Your task to perform on an android device: Clear the cart on newegg.com. Search for dell xps on newegg.com, select the first entry, and add it to the cart. Image 0: 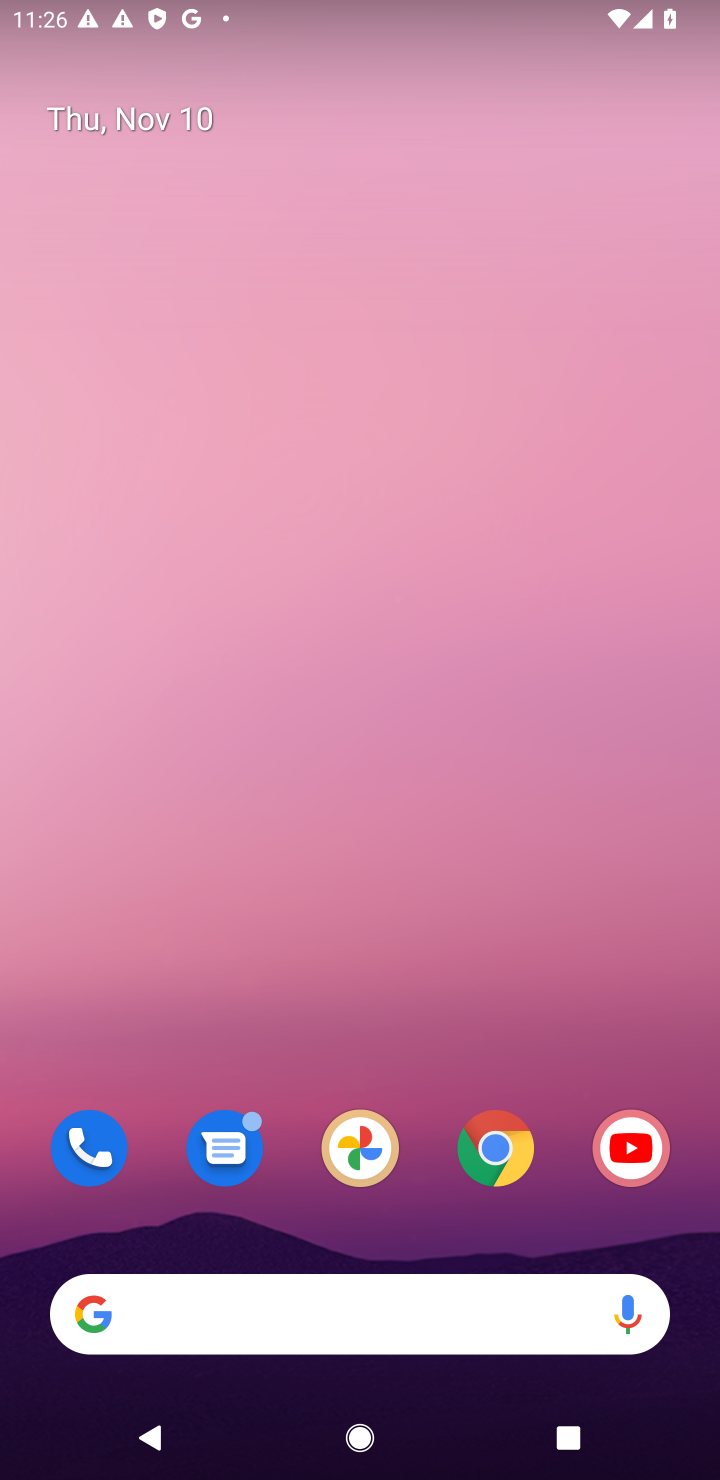
Step 0: click (494, 1132)
Your task to perform on an android device: Clear the cart on newegg.com. Search for dell xps on newegg.com, select the first entry, and add it to the cart. Image 1: 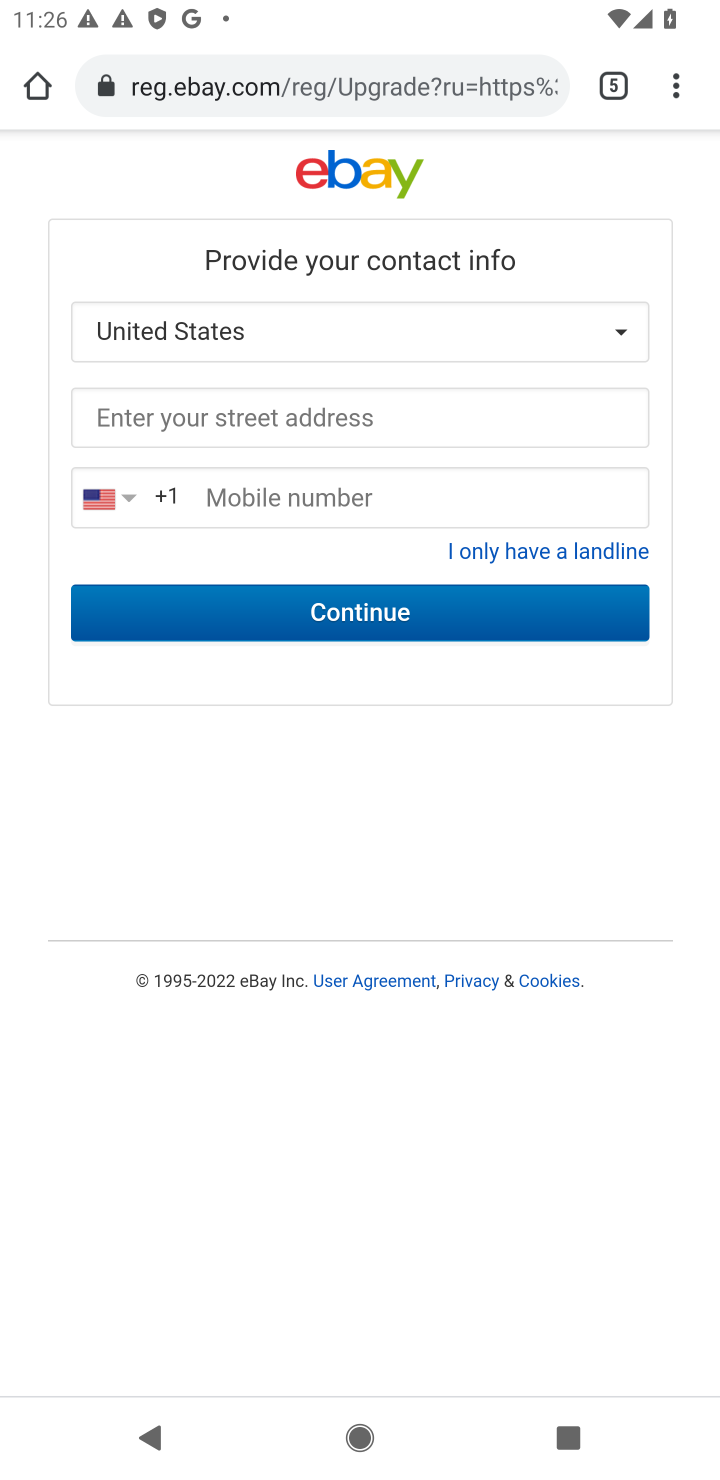
Step 1: press back button
Your task to perform on an android device: Clear the cart on newegg.com. Search for dell xps on newegg.com, select the first entry, and add it to the cart. Image 2: 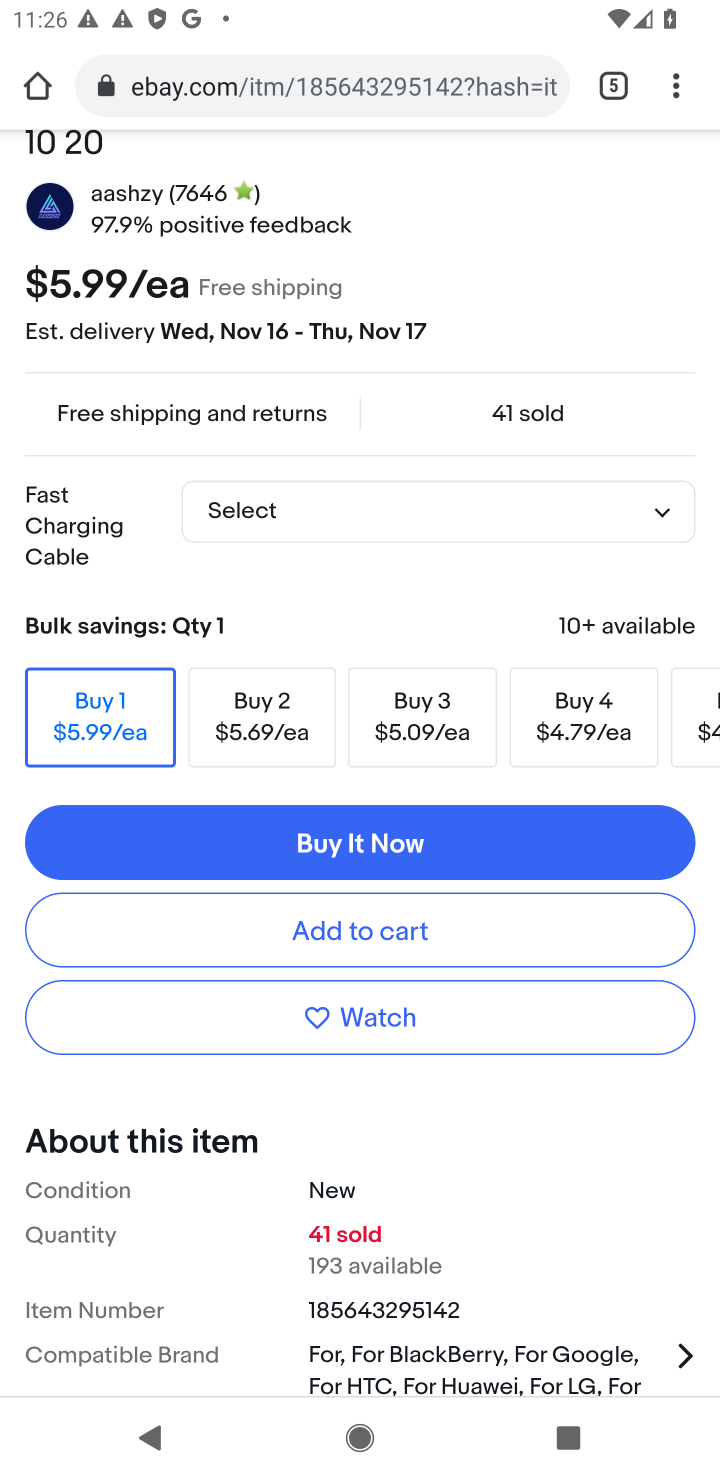
Step 2: drag from (591, 151) to (572, 963)
Your task to perform on an android device: Clear the cart on newegg.com. Search for dell xps on newegg.com, select the first entry, and add it to the cart. Image 3: 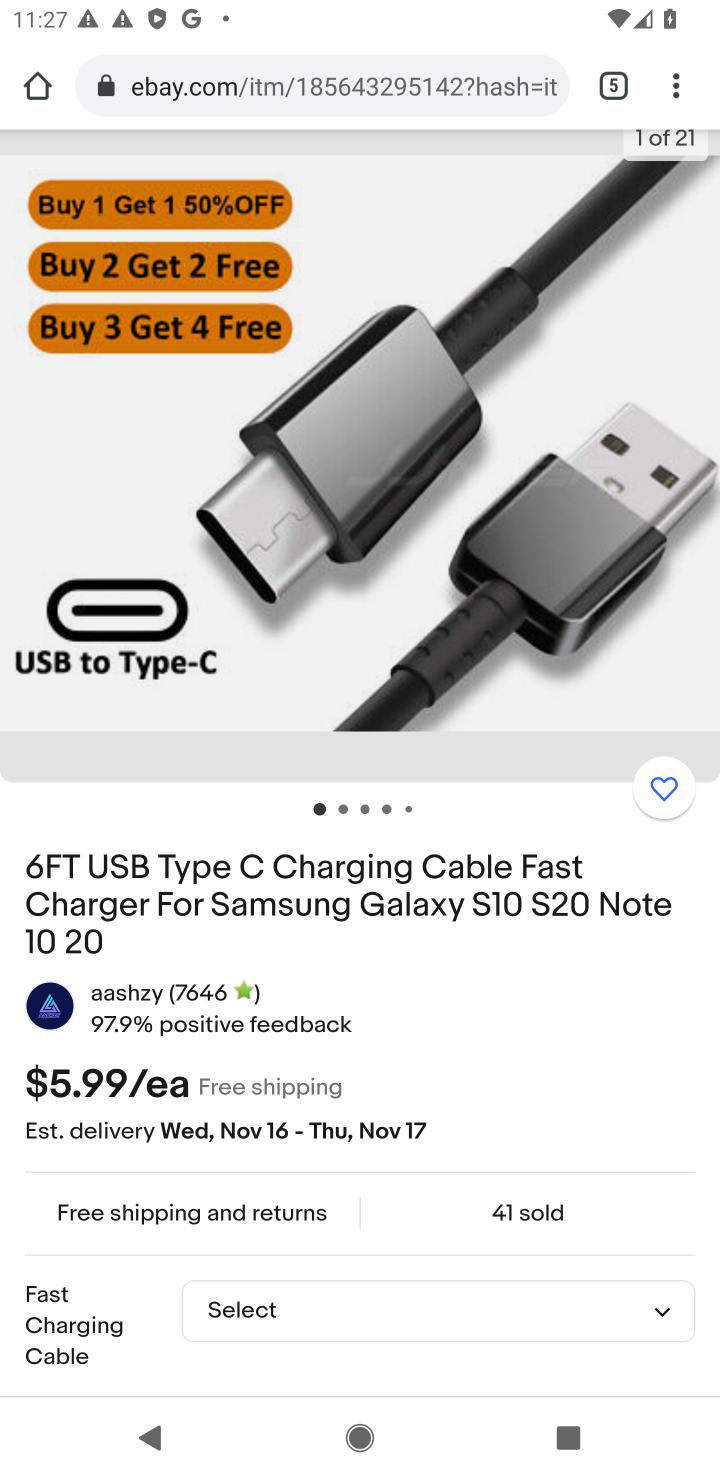
Step 3: drag from (517, 433) to (287, 1269)
Your task to perform on an android device: Clear the cart on newegg.com. Search for dell xps on newegg.com, select the first entry, and add it to the cart. Image 4: 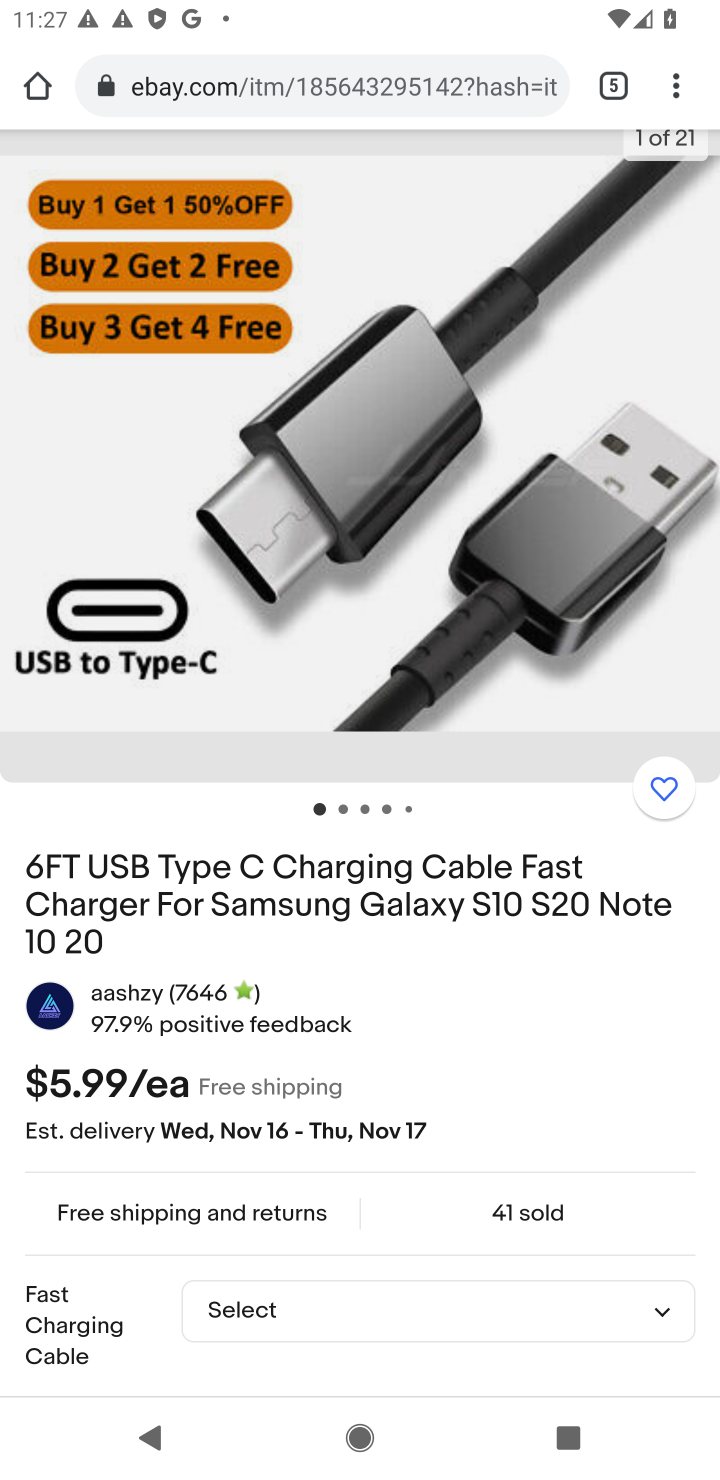
Step 4: drag from (482, 427) to (235, 1467)
Your task to perform on an android device: Clear the cart on newegg.com. Search for dell xps on newegg.com, select the first entry, and add it to the cart. Image 5: 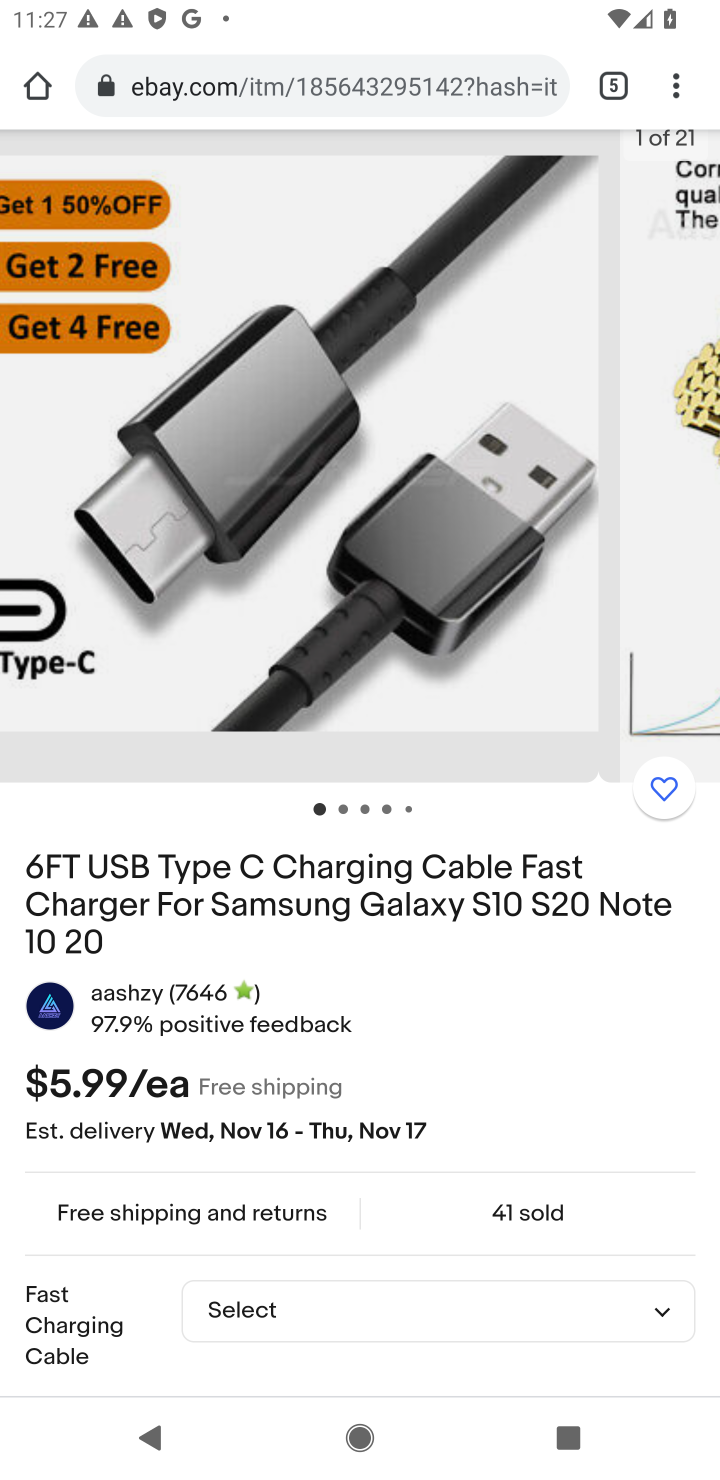
Step 5: drag from (537, 421) to (419, 1263)
Your task to perform on an android device: Clear the cart on newegg.com. Search for dell xps on newegg.com, select the first entry, and add it to the cart. Image 6: 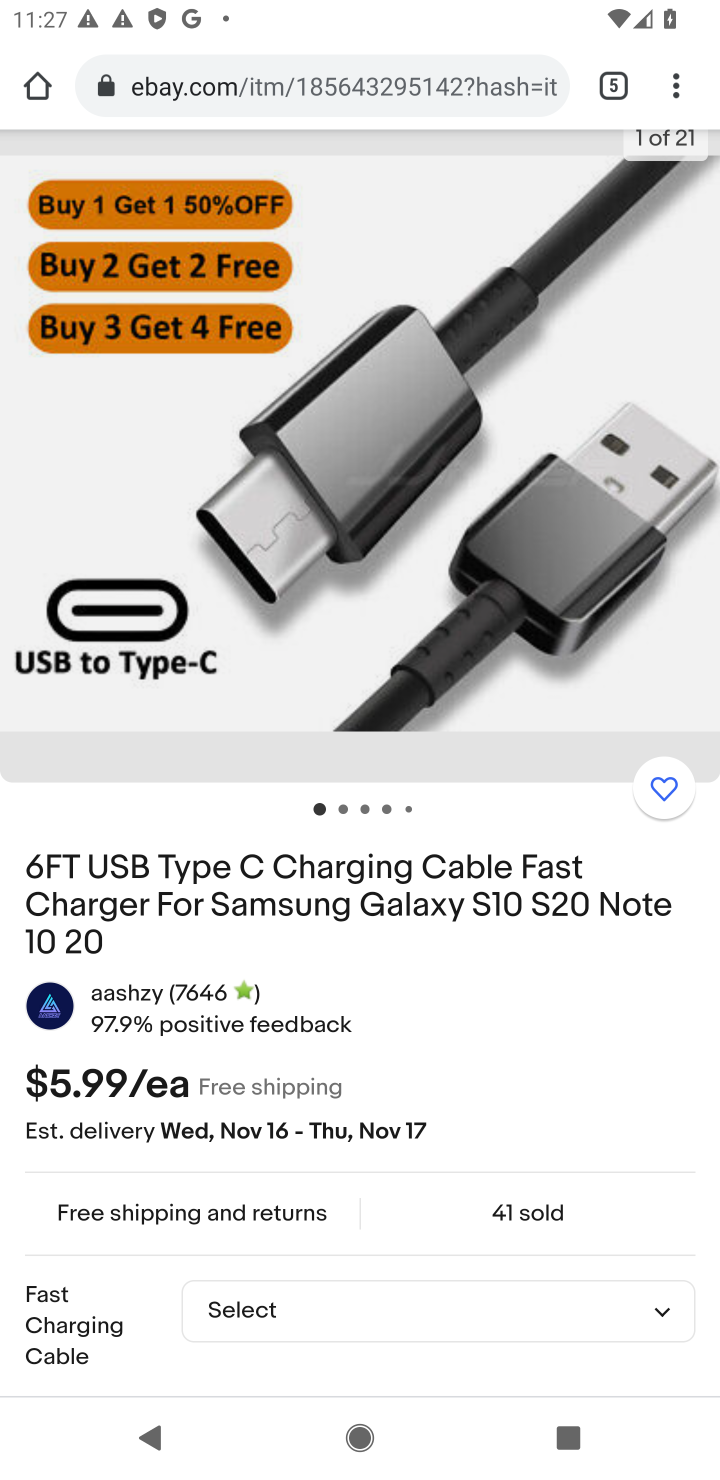
Step 6: drag from (484, 905) to (229, 1469)
Your task to perform on an android device: Clear the cart on newegg.com. Search for dell xps on newegg.com, select the first entry, and add it to the cart. Image 7: 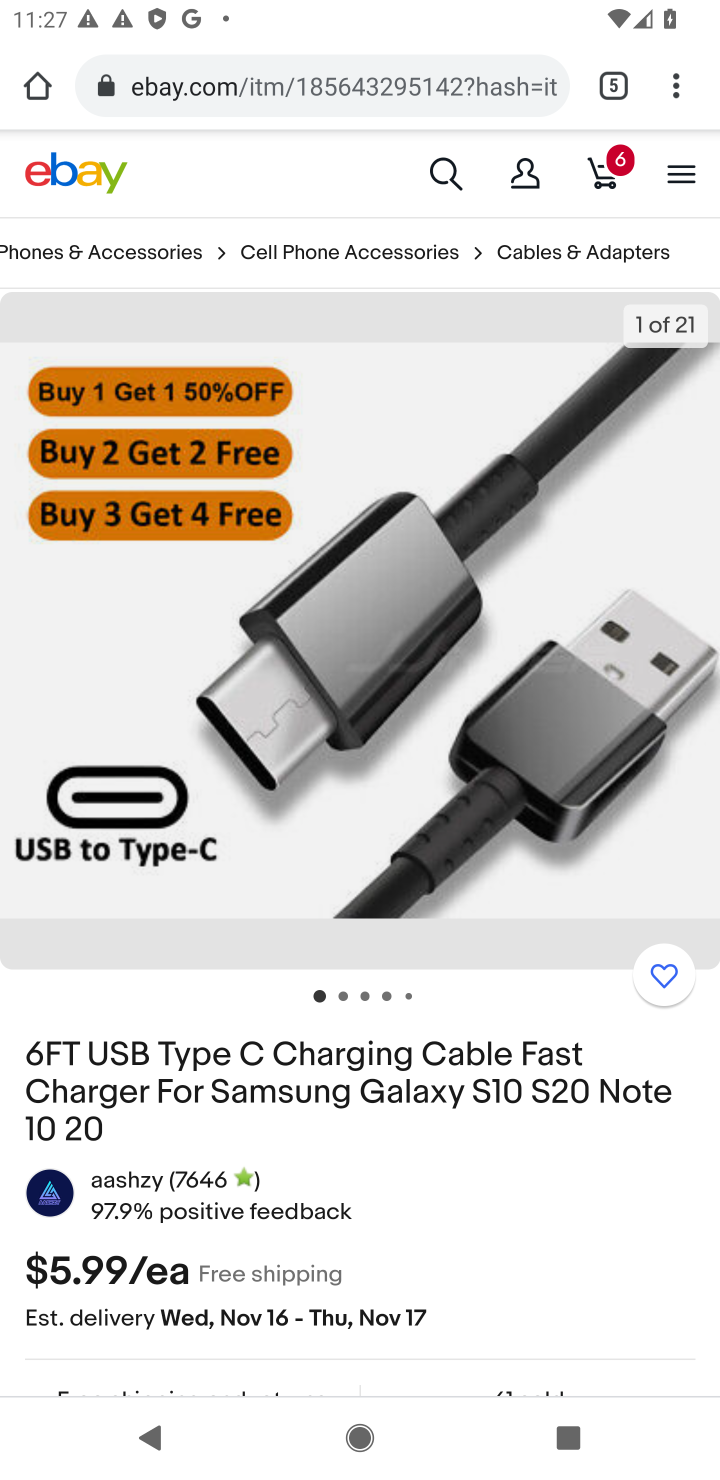
Step 7: click (440, 152)
Your task to perform on an android device: Clear the cart on newegg.com. Search for dell xps on newegg.com, select the first entry, and add it to the cart. Image 8: 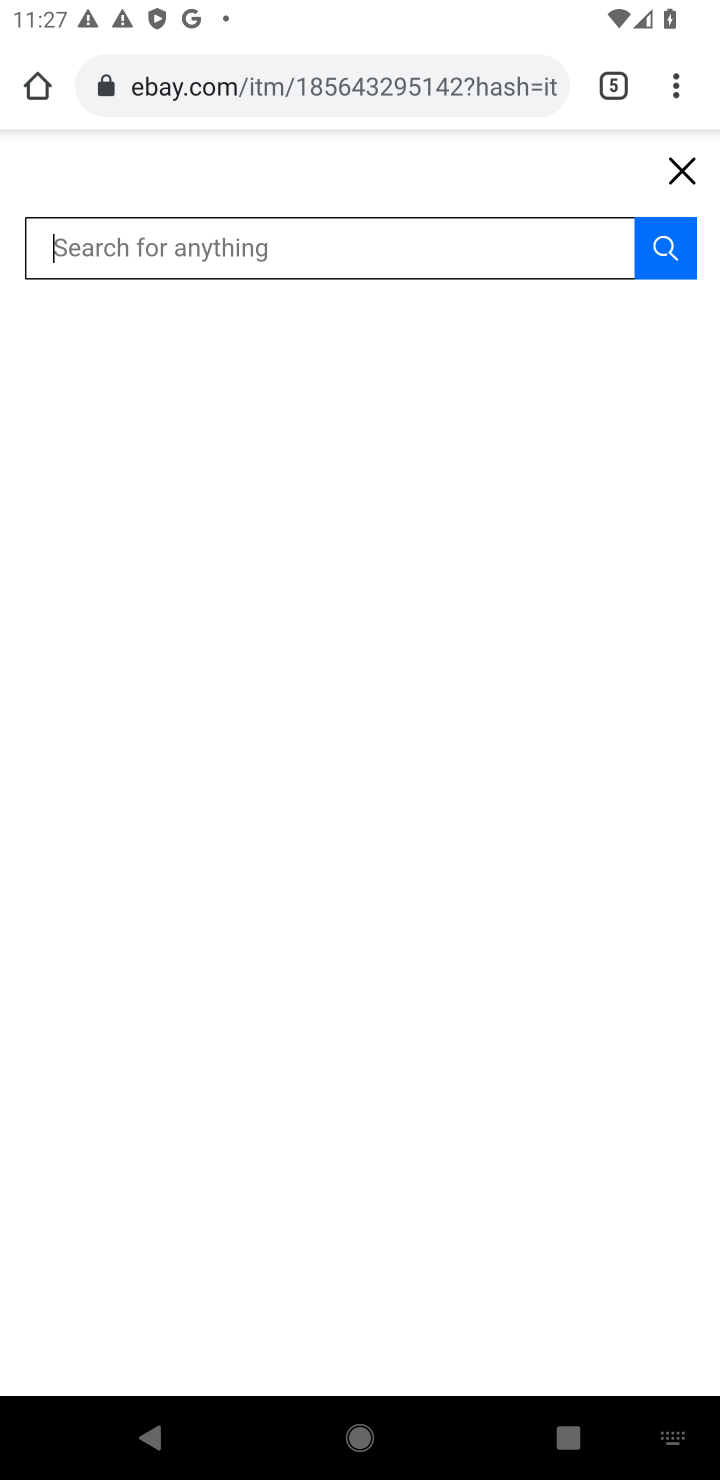
Step 8: type "dell xps"
Your task to perform on an android device: Clear the cart on newegg.com. Search for dell xps on newegg.com, select the first entry, and add it to the cart. Image 9: 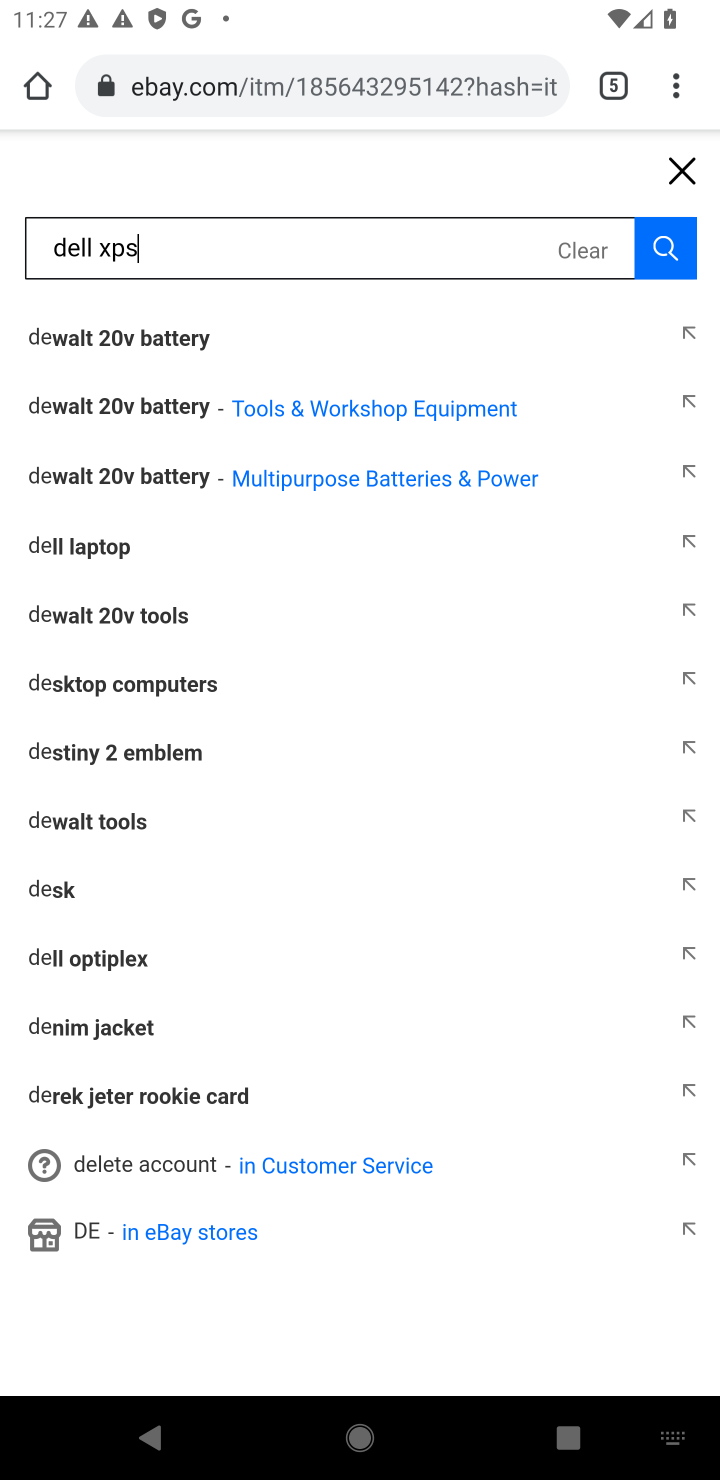
Step 9: click (677, 249)
Your task to perform on an android device: Clear the cart on newegg.com. Search for dell xps on newegg.com, select the first entry, and add it to the cart. Image 10: 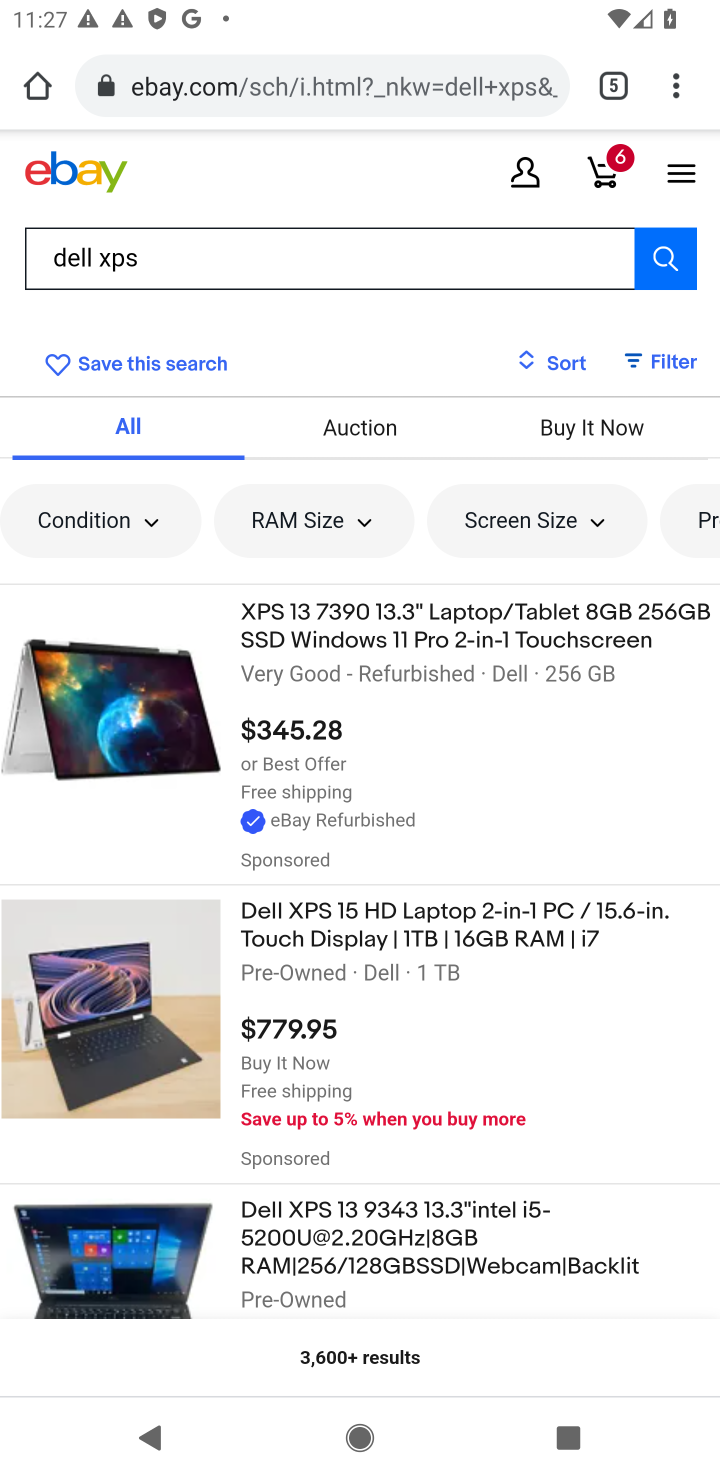
Step 10: click (493, 931)
Your task to perform on an android device: Clear the cart on newegg.com. Search for dell xps on newegg.com, select the first entry, and add it to the cart. Image 11: 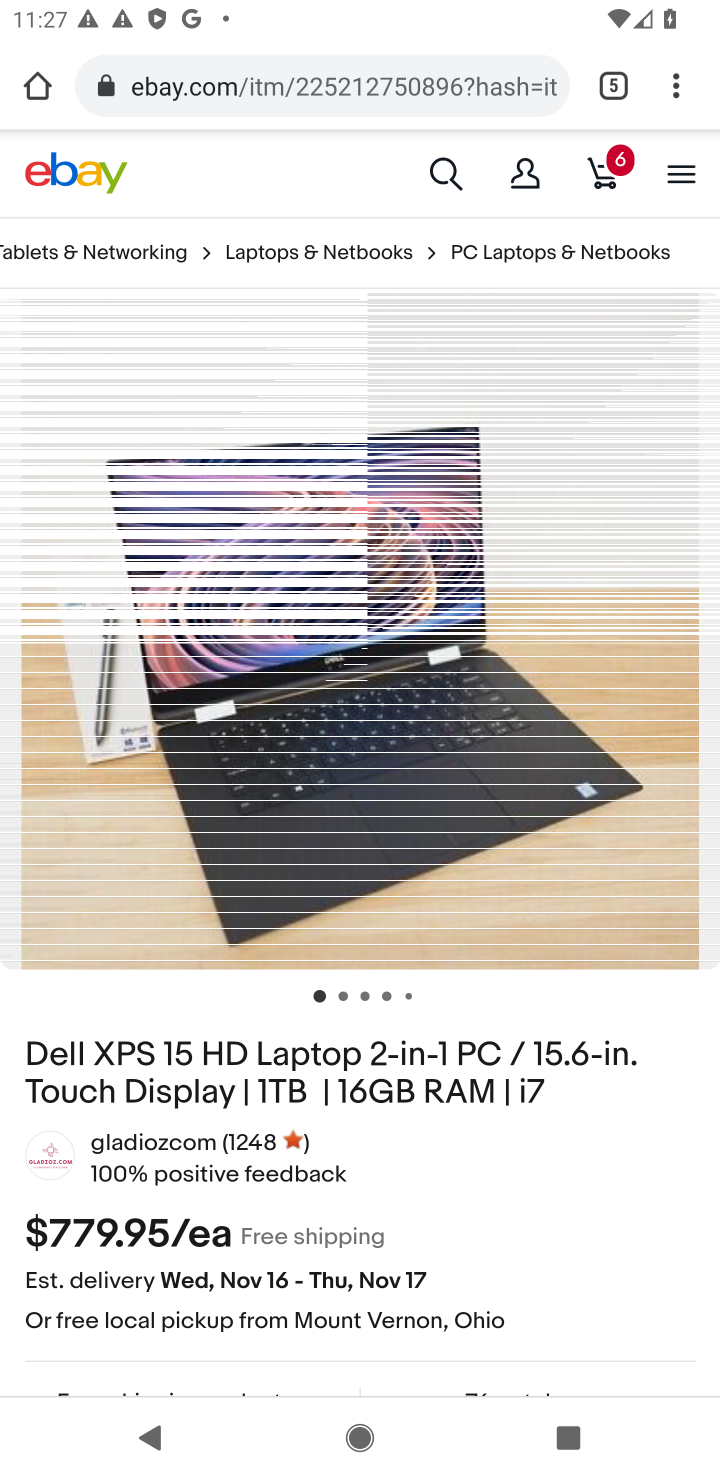
Step 11: task complete